Your task to perform on an android device: Check the weather Image 0: 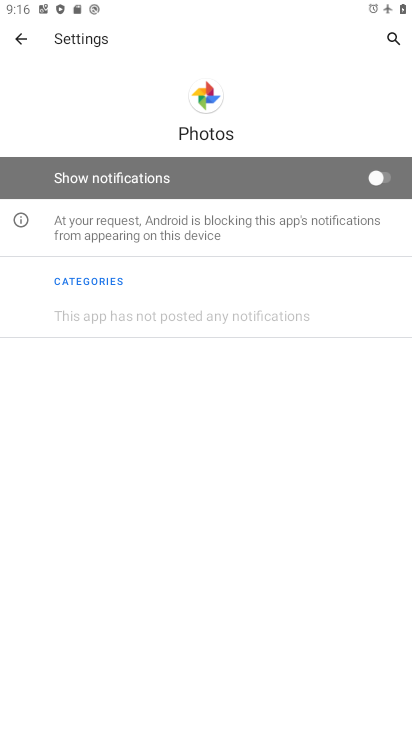
Step 0: press home button
Your task to perform on an android device: Check the weather Image 1: 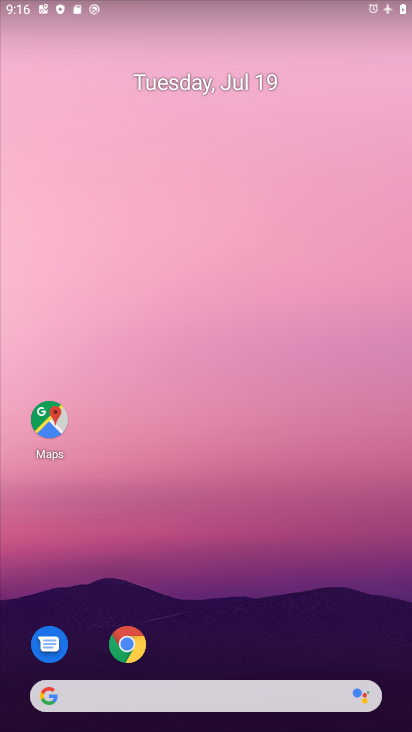
Step 1: click (197, 682)
Your task to perform on an android device: Check the weather Image 2: 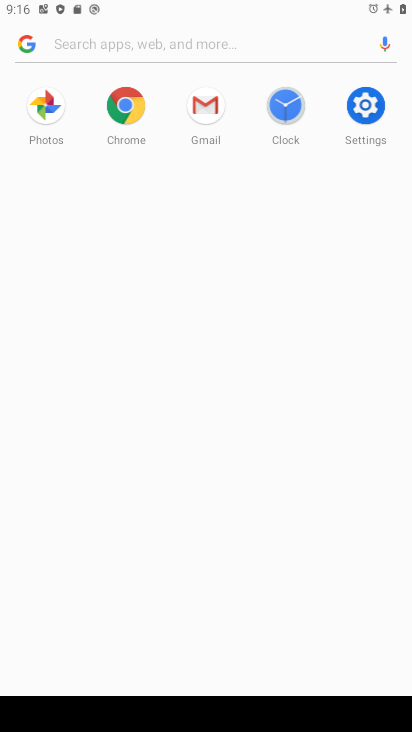
Step 2: task complete